Your task to perform on an android device: Open Google Maps and go to "Timeline" Image 0: 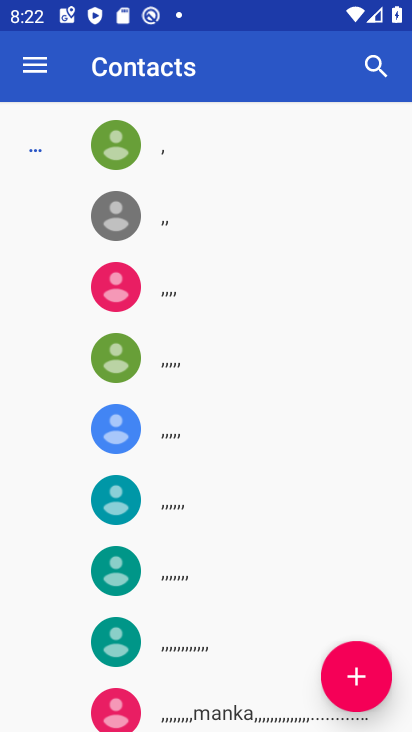
Step 0: press home button
Your task to perform on an android device: Open Google Maps and go to "Timeline" Image 1: 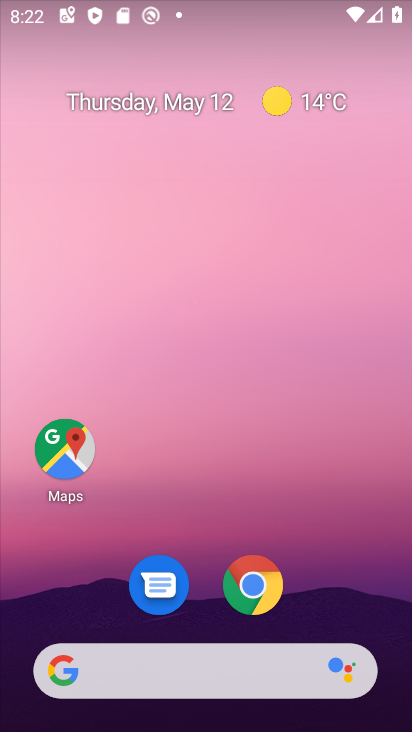
Step 1: click (52, 449)
Your task to perform on an android device: Open Google Maps and go to "Timeline" Image 2: 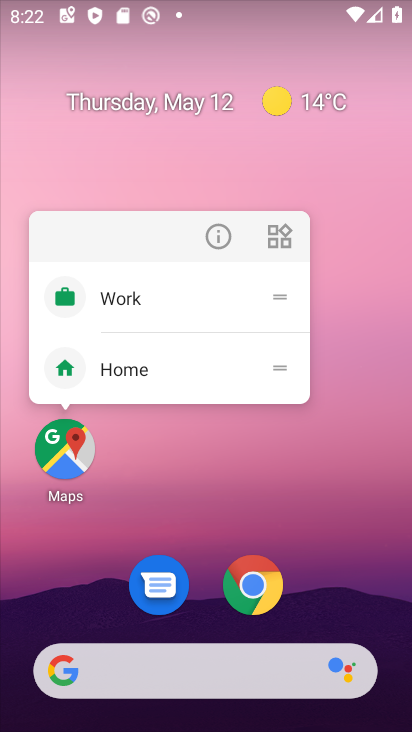
Step 2: click (55, 446)
Your task to perform on an android device: Open Google Maps and go to "Timeline" Image 3: 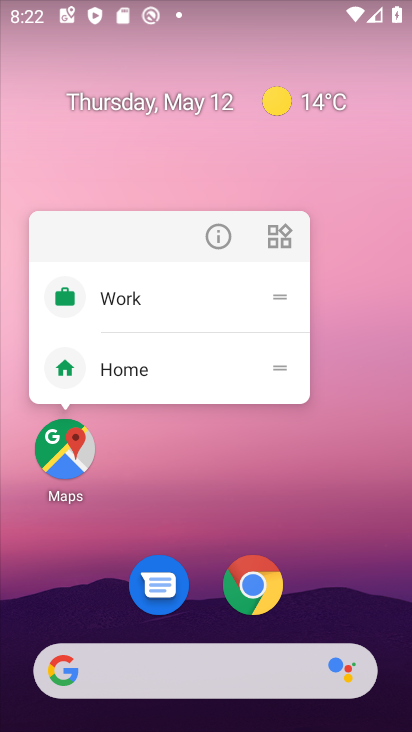
Step 3: click (55, 446)
Your task to perform on an android device: Open Google Maps and go to "Timeline" Image 4: 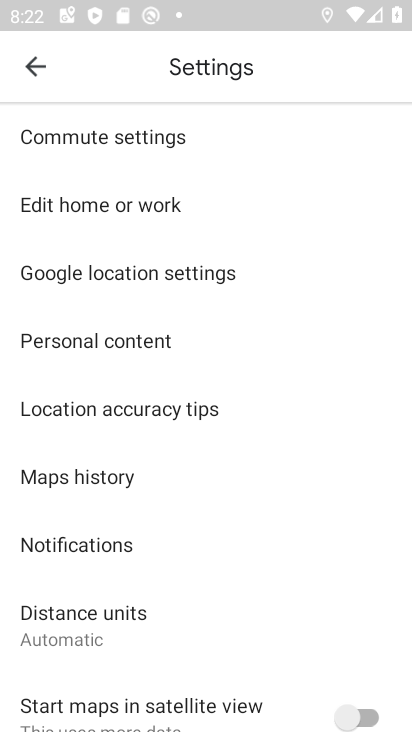
Step 4: click (29, 53)
Your task to perform on an android device: Open Google Maps and go to "Timeline" Image 5: 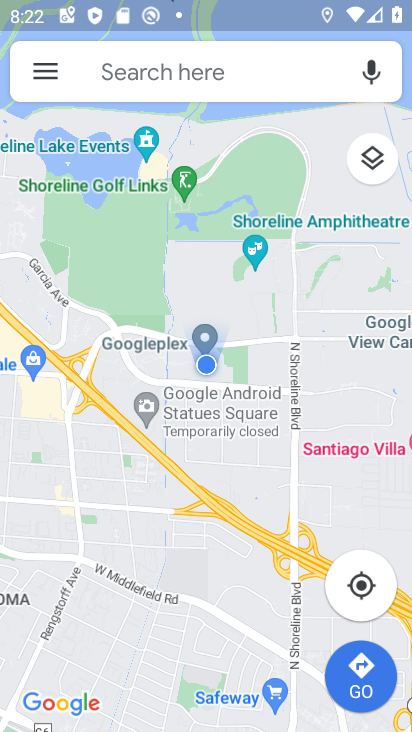
Step 5: click (49, 62)
Your task to perform on an android device: Open Google Maps and go to "Timeline" Image 6: 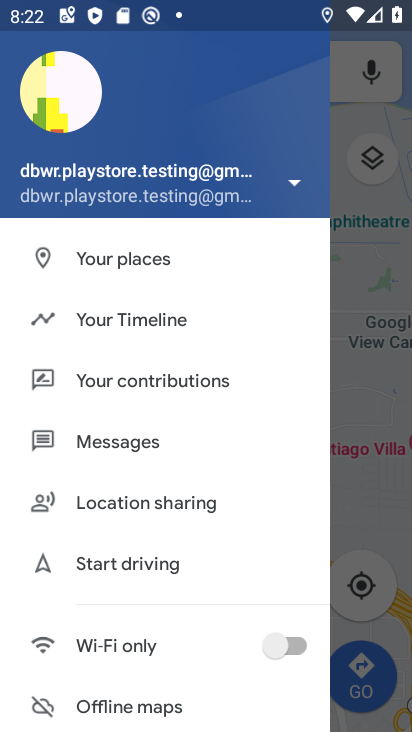
Step 6: click (169, 309)
Your task to perform on an android device: Open Google Maps and go to "Timeline" Image 7: 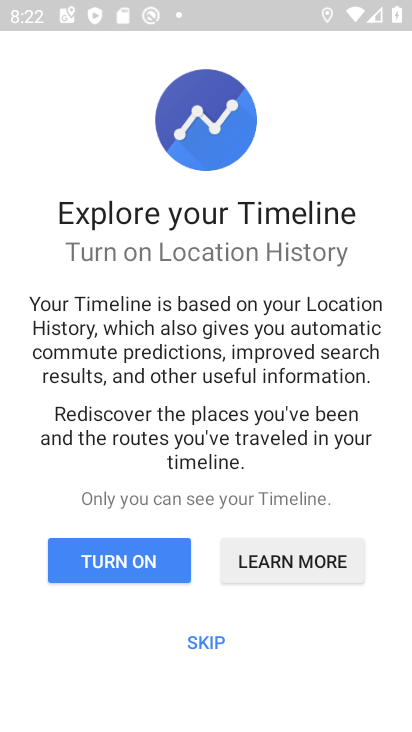
Step 7: click (206, 639)
Your task to perform on an android device: Open Google Maps and go to "Timeline" Image 8: 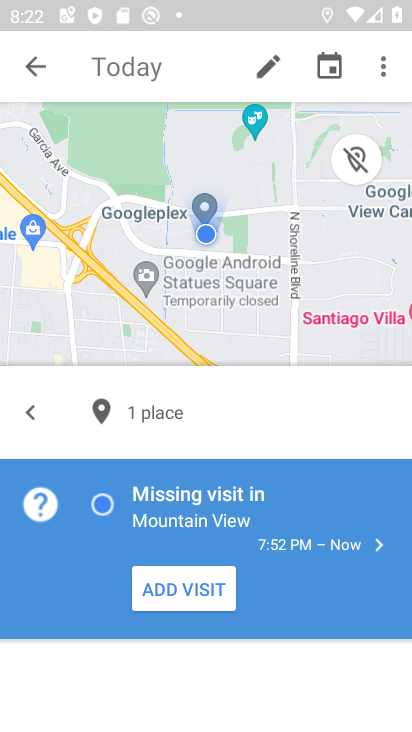
Step 8: task complete